Your task to perform on an android device: choose inbox layout in the gmail app Image 0: 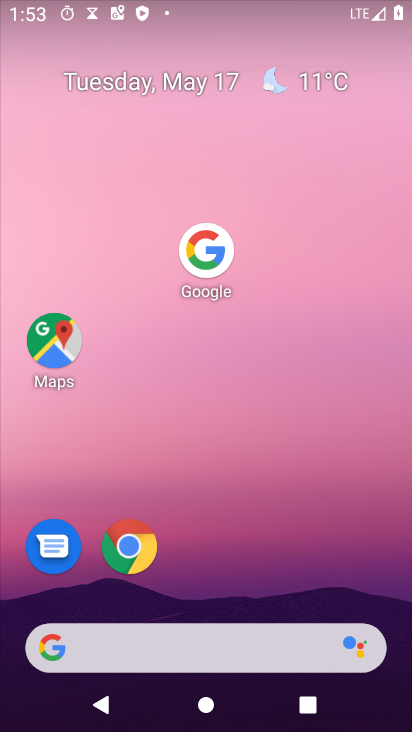
Step 0: press home button
Your task to perform on an android device: choose inbox layout in the gmail app Image 1: 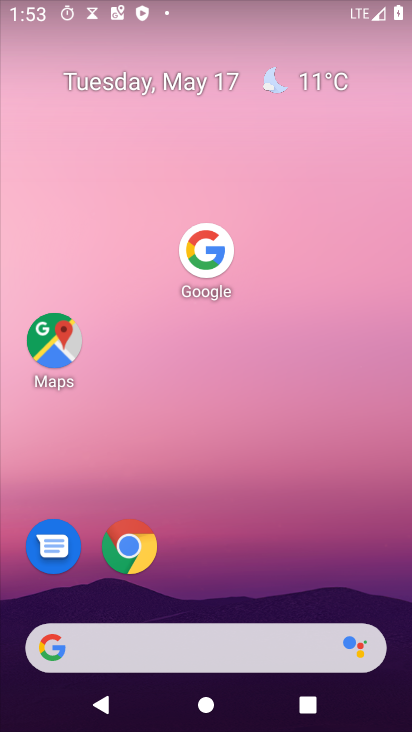
Step 1: drag from (143, 654) to (279, 141)
Your task to perform on an android device: choose inbox layout in the gmail app Image 2: 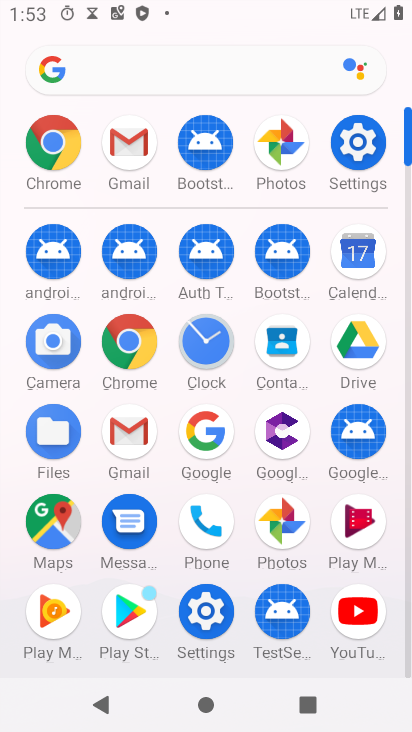
Step 2: click (133, 156)
Your task to perform on an android device: choose inbox layout in the gmail app Image 3: 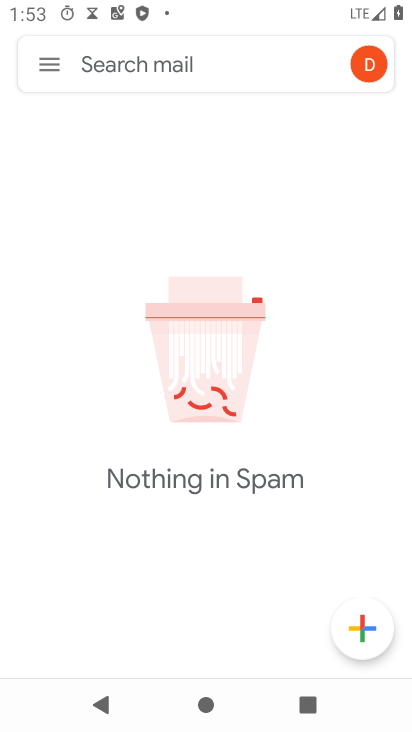
Step 3: click (51, 57)
Your task to perform on an android device: choose inbox layout in the gmail app Image 4: 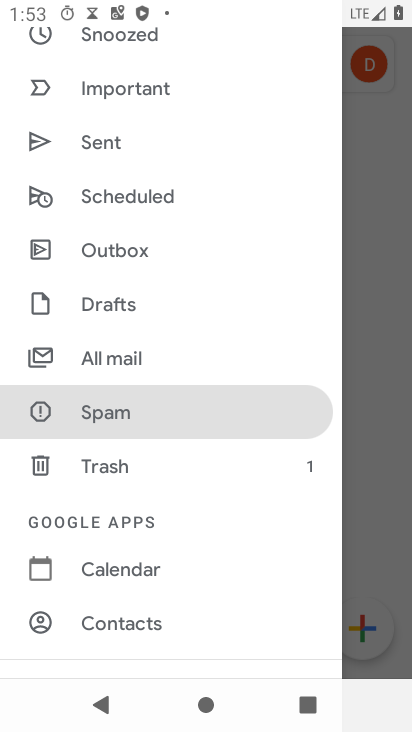
Step 4: drag from (202, 553) to (261, 98)
Your task to perform on an android device: choose inbox layout in the gmail app Image 5: 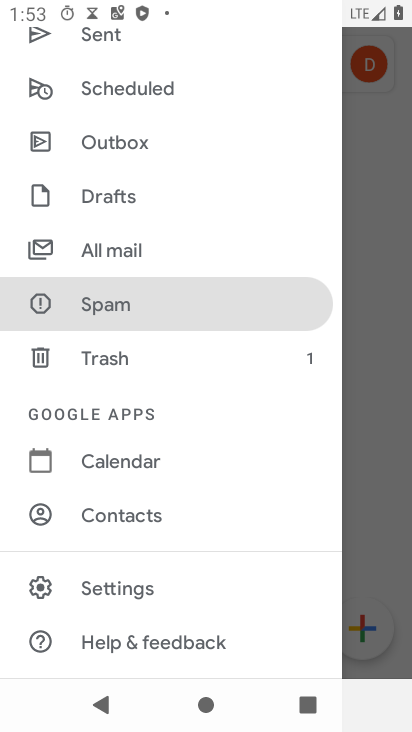
Step 5: click (117, 581)
Your task to perform on an android device: choose inbox layout in the gmail app Image 6: 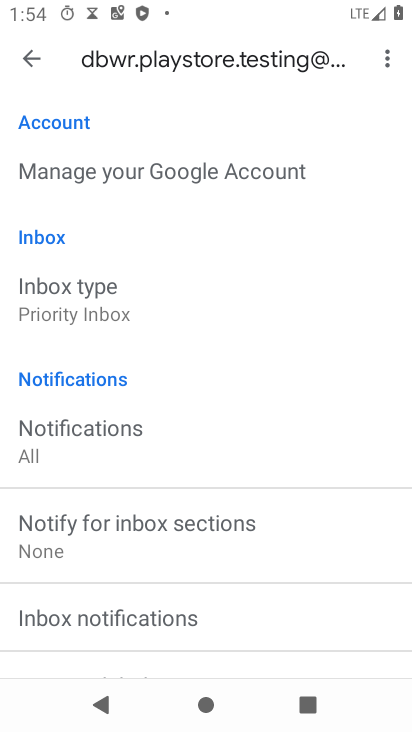
Step 6: click (90, 309)
Your task to perform on an android device: choose inbox layout in the gmail app Image 7: 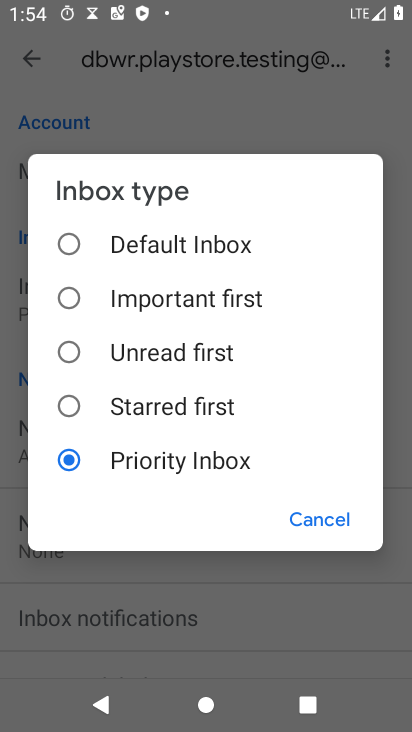
Step 7: click (73, 295)
Your task to perform on an android device: choose inbox layout in the gmail app Image 8: 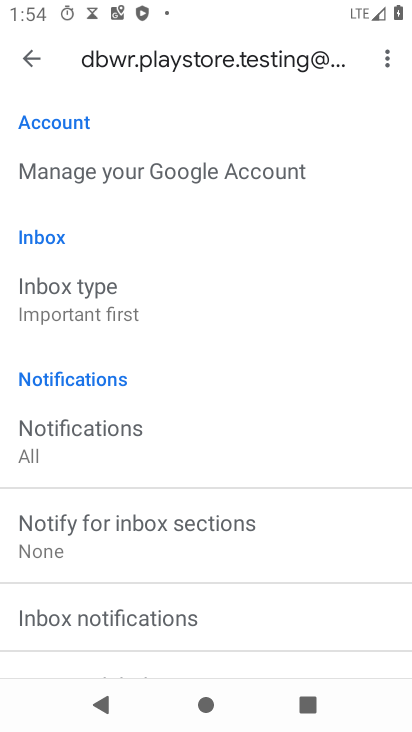
Step 8: task complete